Your task to perform on an android device: turn off priority inbox in the gmail app Image 0: 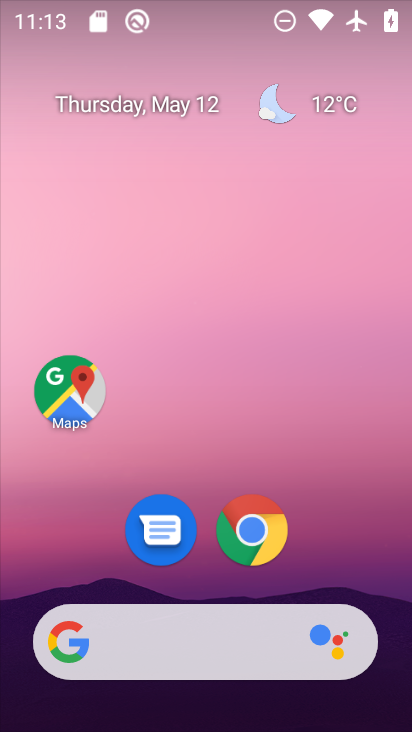
Step 0: drag from (150, 625) to (311, 194)
Your task to perform on an android device: turn off priority inbox in the gmail app Image 1: 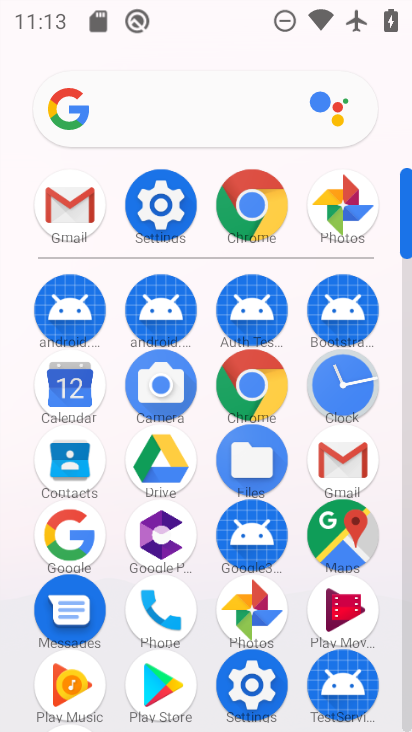
Step 1: click (77, 220)
Your task to perform on an android device: turn off priority inbox in the gmail app Image 2: 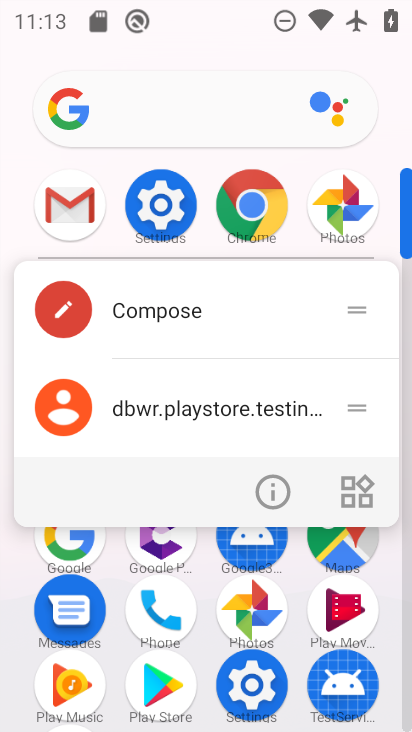
Step 2: click (77, 219)
Your task to perform on an android device: turn off priority inbox in the gmail app Image 3: 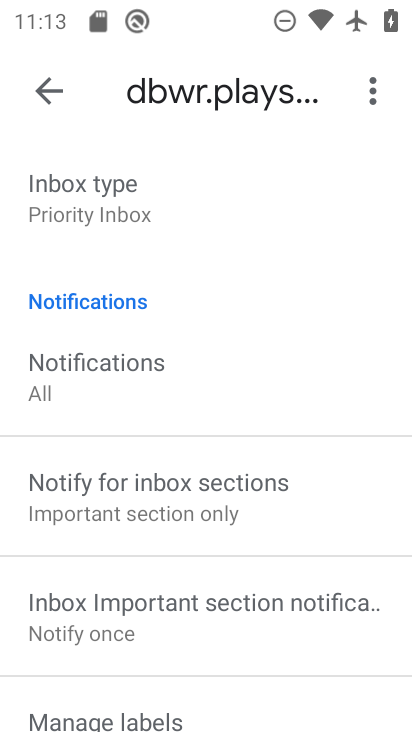
Step 3: click (133, 190)
Your task to perform on an android device: turn off priority inbox in the gmail app Image 4: 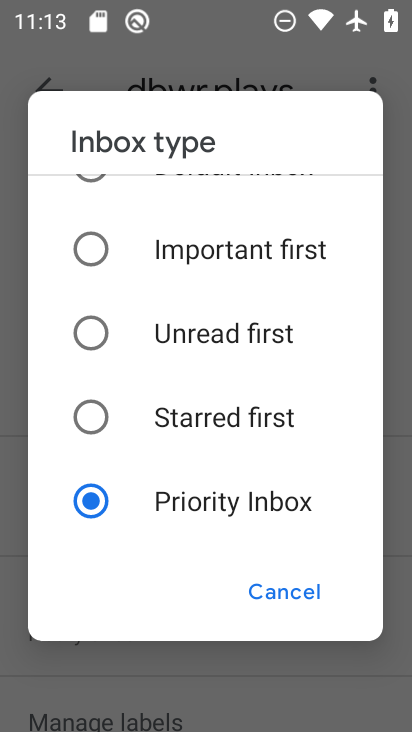
Step 4: drag from (186, 214) to (113, 537)
Your task to perform on an android device: turn off priority inbox in the gmail app Image 5: 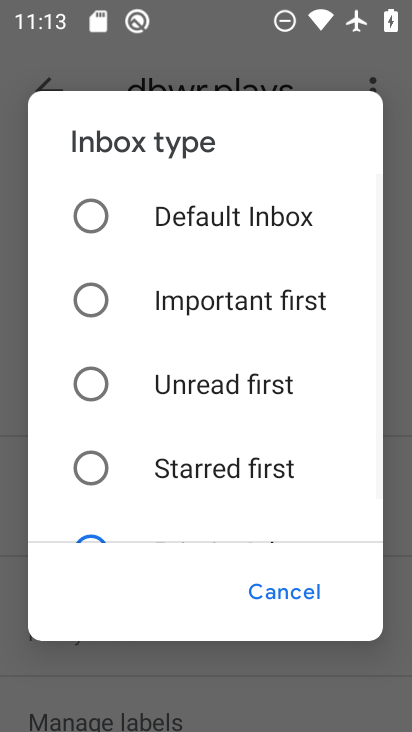
Step 5: click (100, 213)
Your task to perform on an android device: turn off priority inbox in the gmail app Image 6: 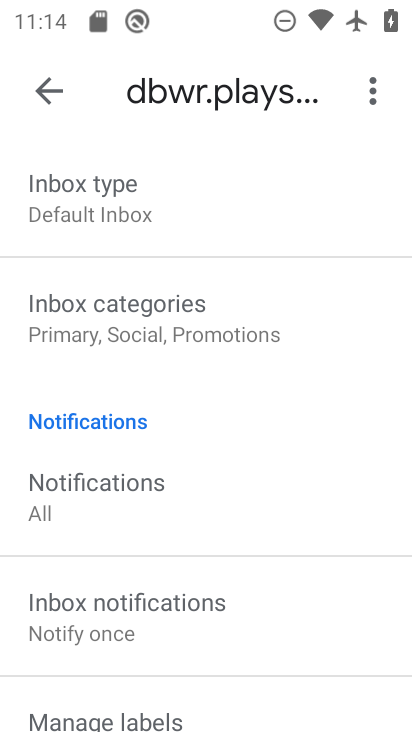
Step 6: task complete